Your task to perform on an android device: uninstall "Yahoo Mail" Image 0: 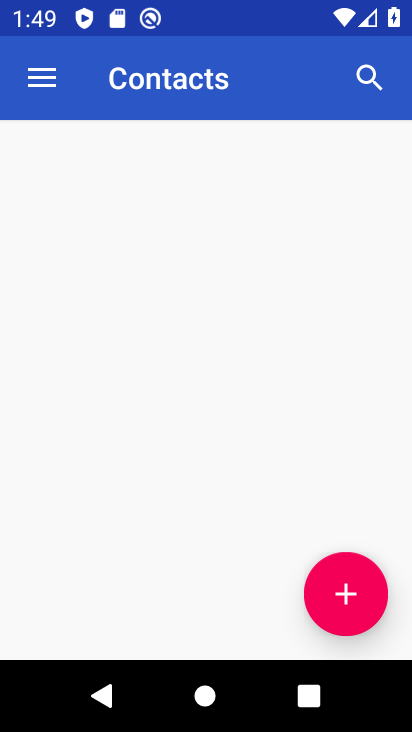
Step 0: drag from (185, 534) to (167, 209)
Your task to perform on an android device: uninstall "Yahoo Mail" Image 1: 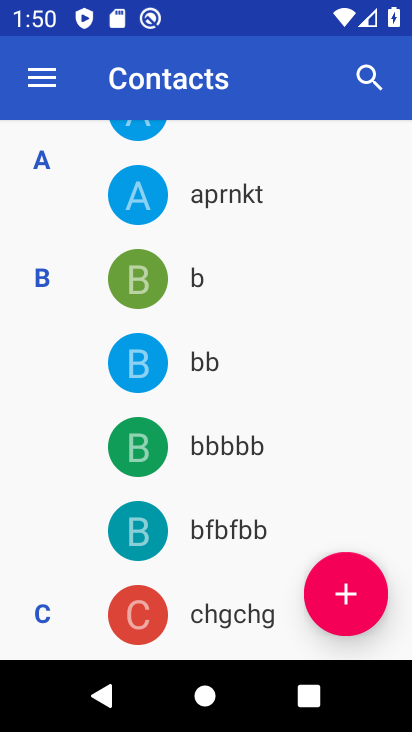
Step 1: press home button
Your task to perform on an android device: uninstall "Yahoo Mail" Image 2: 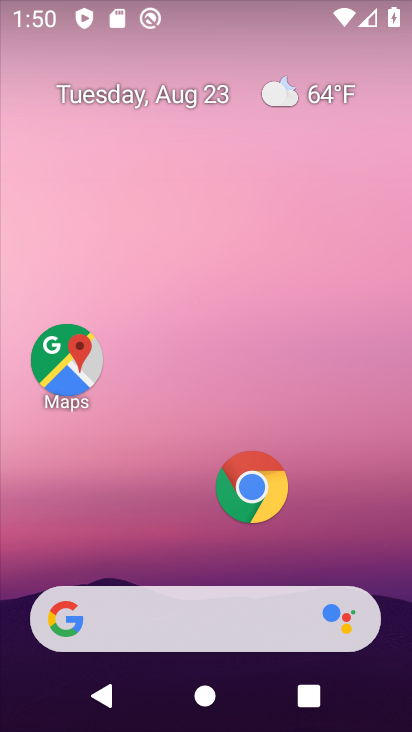
Step 2: drag from (160, 580) to (175, 202)
Your task to perform on an android device: uninstall "Yahoo Mail" Image 3: 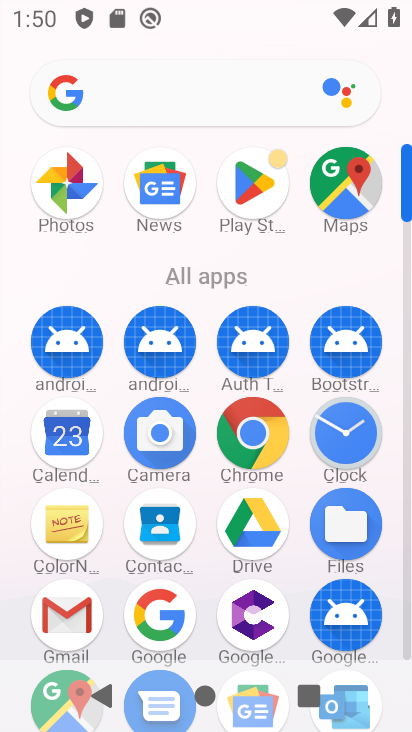
Step 3: click (234, 172)
Your task to perform on an android device: uninstall "Yahoo Mail" Image 4: 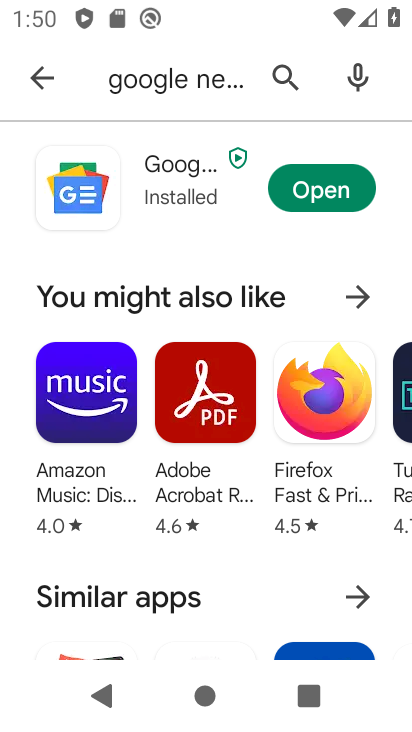
Step 4: click (23, 86)
Your task to perform on an android device: uninstall "Yahoo Mail" Image 5: 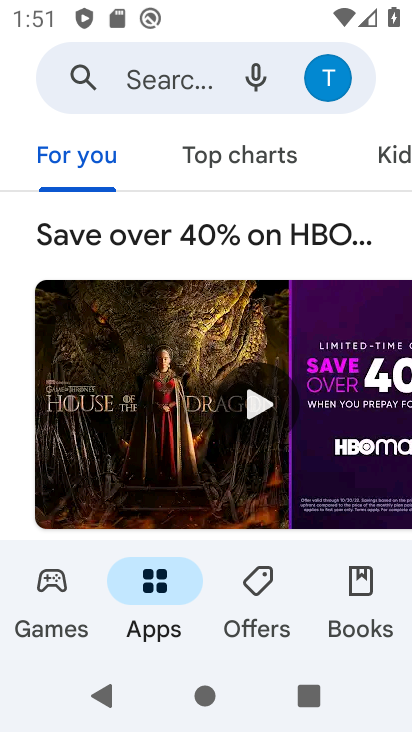
Step 5: click (145, 87)
Your task to perform on an android device: uninstall "Yahoo Mail" Image 6: 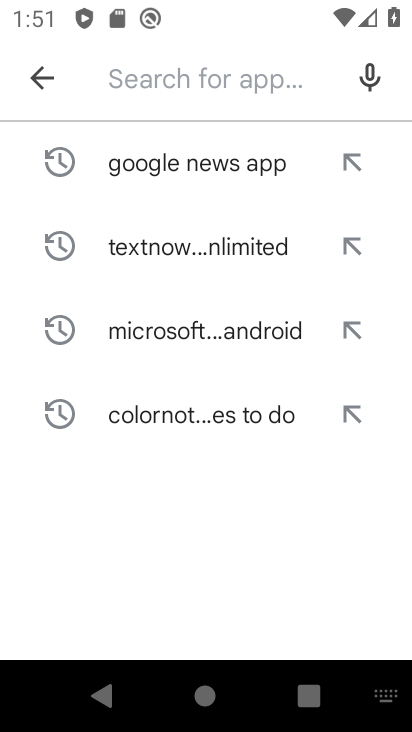
Step 6: type "Yahoo Mail "
Your task to perform on an android device: uninstall "Yahoo Mail" Image 7: 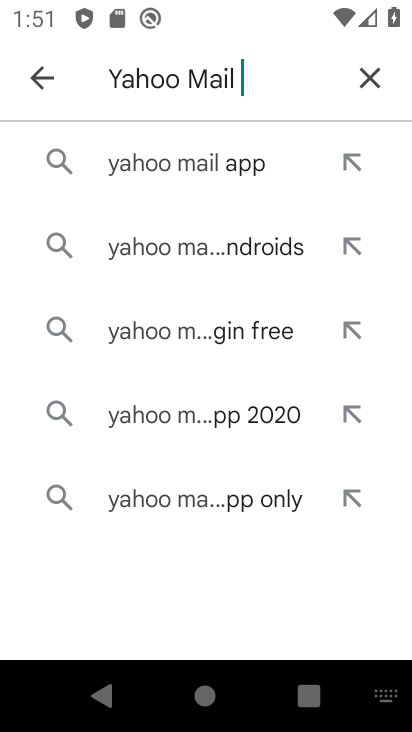
Step 7: click (198, 168)
Your task to perform on an android device: uninstall "Yahoo Mail" Image 8: 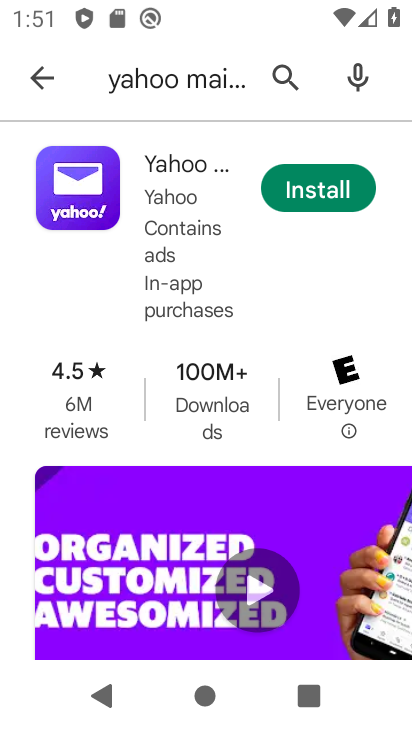
Step 8: task complete